Your task to perform on an android device: Open Google Chrome and click the shortcut for Amazon.com Image 0: 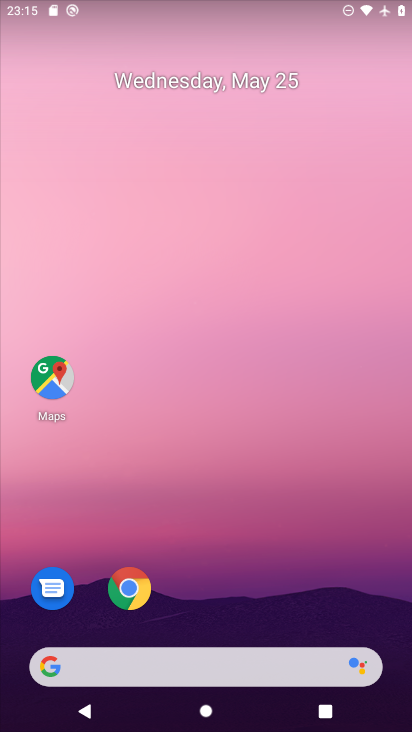
Step 0: drag from (227, 571) to (251, 124)
Your task to perform on an android device: Open Google Chrome and click the shortcut for Amazon.com Image 1: 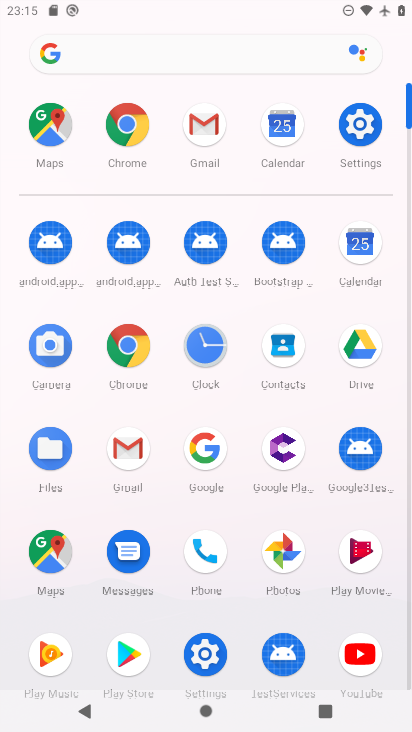
Step 1: click (126, 346)
Your task to perform on an android device: Open Google Chrome and click the shortcut for Amazon.com Image 2: 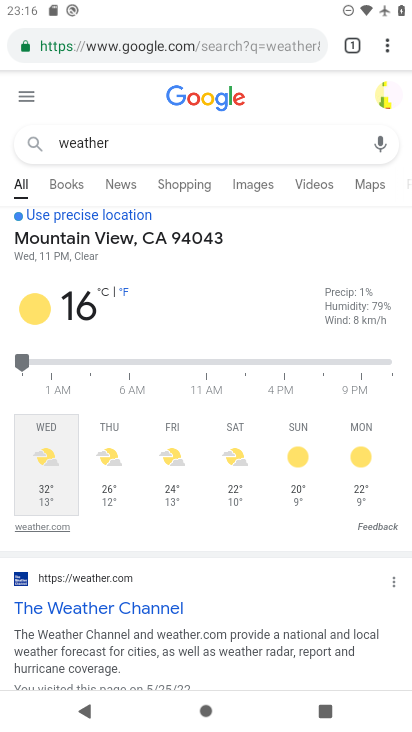
Step 2: click (164, 46)
Your task to perform on an android device: Open Google Chrome and click the shortcut for Amazon.com Image 3: 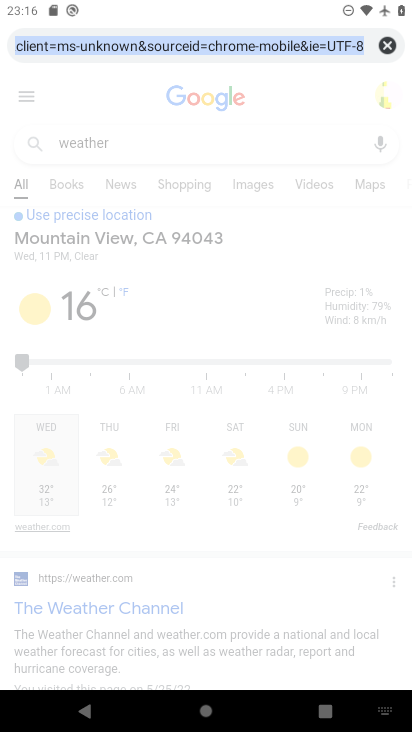
Step 3: click (379, 47)
Your task to perform on an android device: Open Google Chrome and click the shortcut for Amazon.com Image 4: 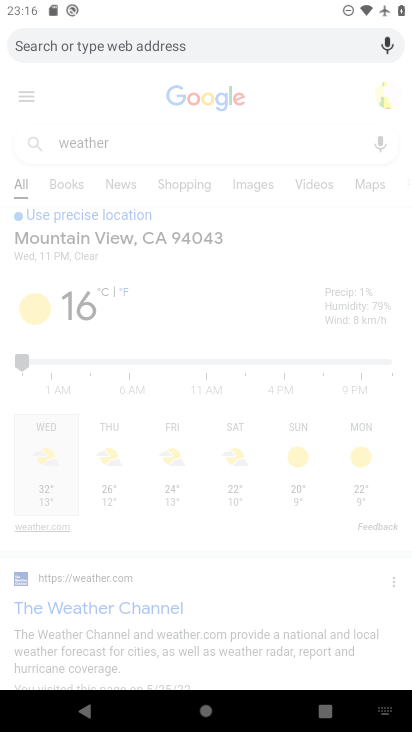
Step 4: type "amazon"
Your task to perform on an android device: Open Google Chrome and click the shortcut for Amazon.com Image 5: 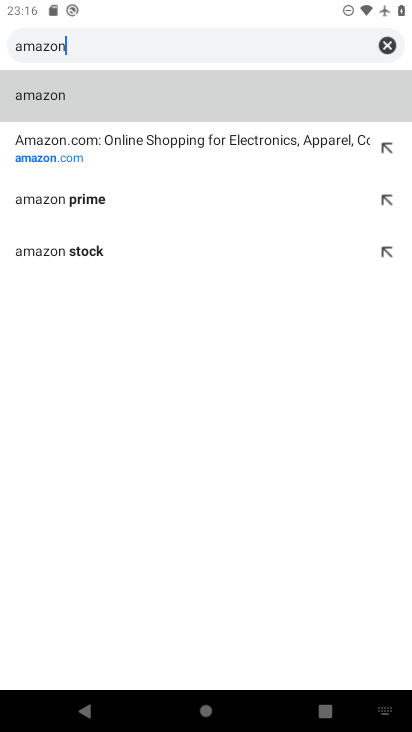
Step 5: click (77, 161)
Your task to perform on an android device: Open Google Chrome and click the shortcut for Amazon.com Image 6: 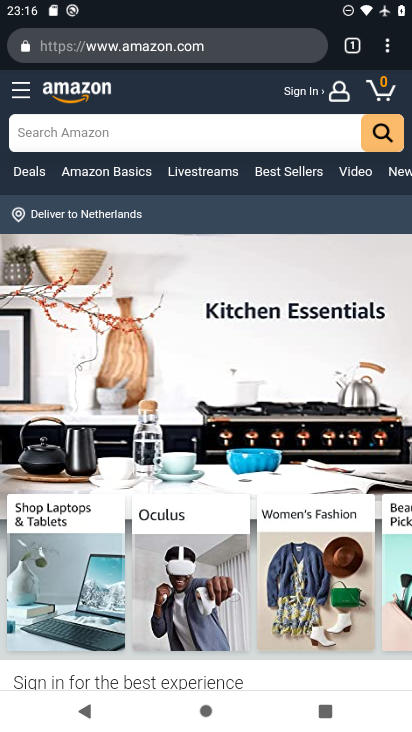
Step 6: task complete